Your task to perform on an android device: refresh tabs in the chrome app Image 0: 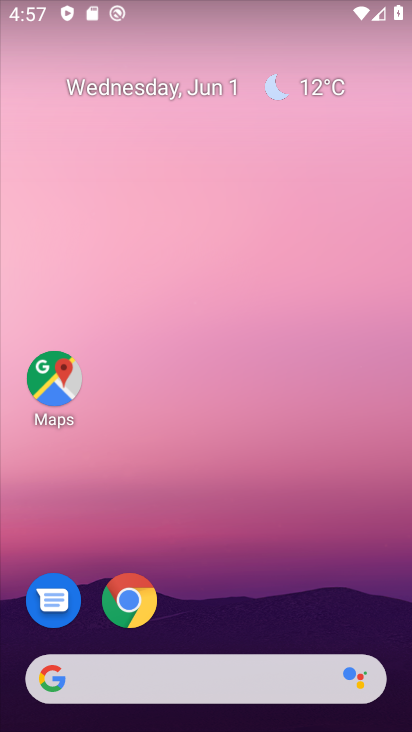
Step 0: click (130, 600)
Your task to perform on an android device: refresh tabs in the chrome app Image 1: 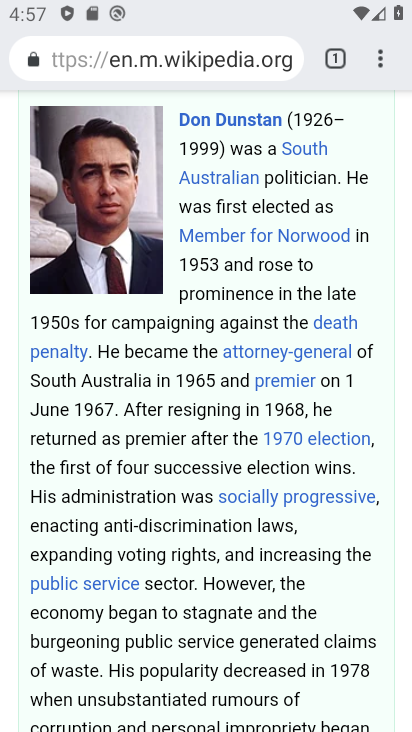
Step 1: click (379, 57)
Your task to perform on an android device: refresh tabs in the chrome app Image 2: 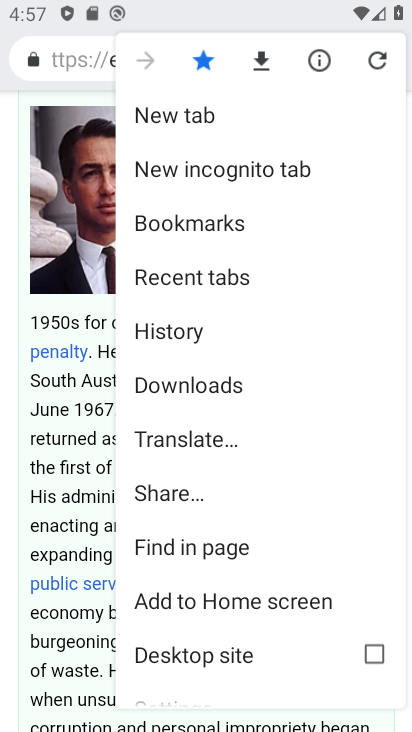
Step 2: click (379, 57)
Your task to perform on an android device: refresh tabs in the chrome app Image 3: 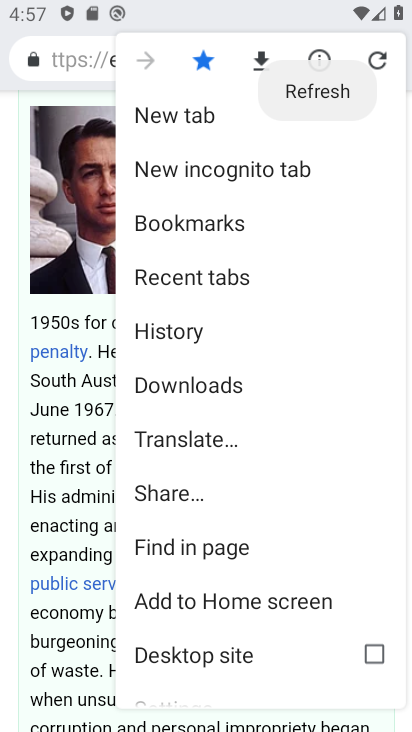
Step 3: click (379, 57)
Your task to perform on an android device: refresh tabs in the chrome app Image 4: 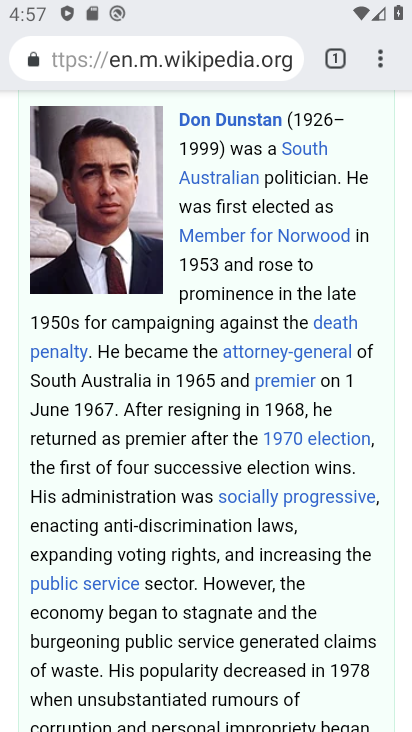
Step 4: task complete